Your task to perform on an android device: change notification settings in the gmail app Image 0: 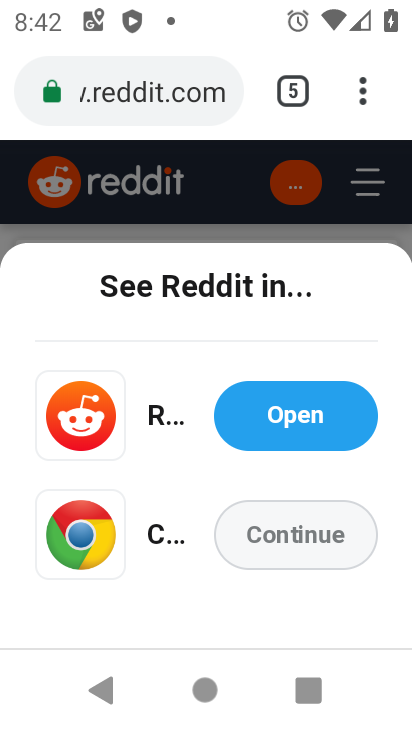
Step 0: press home button
Your task to perform on an android device: change notification settings in the gmail app Image 1: 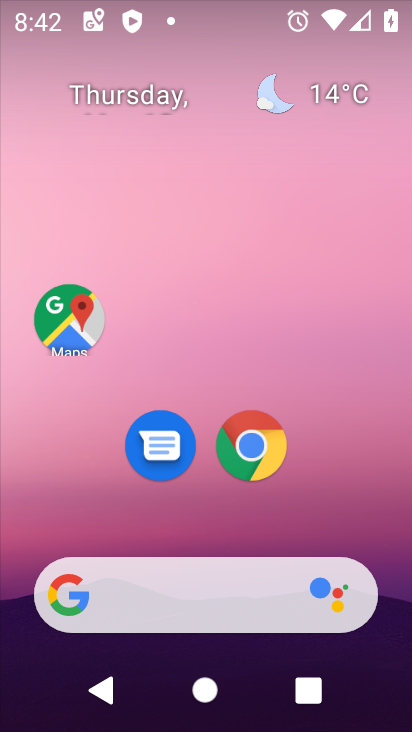
Step 1: drag from (236, 725) to (233, 131)
Your task to perform on an android device: change notification settings in the gmail app Image 2: 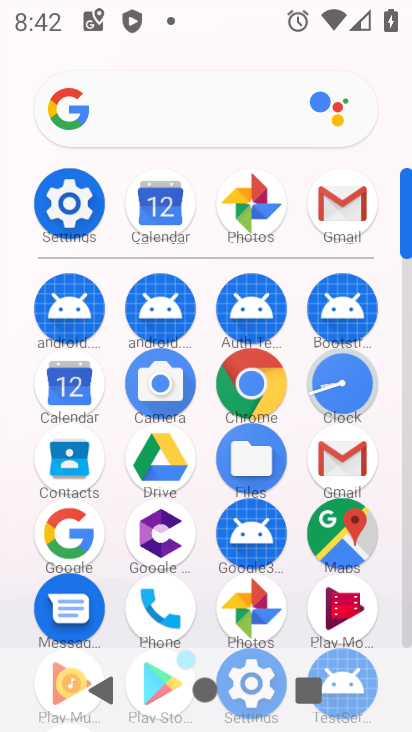
Step 2: click (351, 456)
Your task to perform on an android device: change notification settings in the gmail app Image 3: 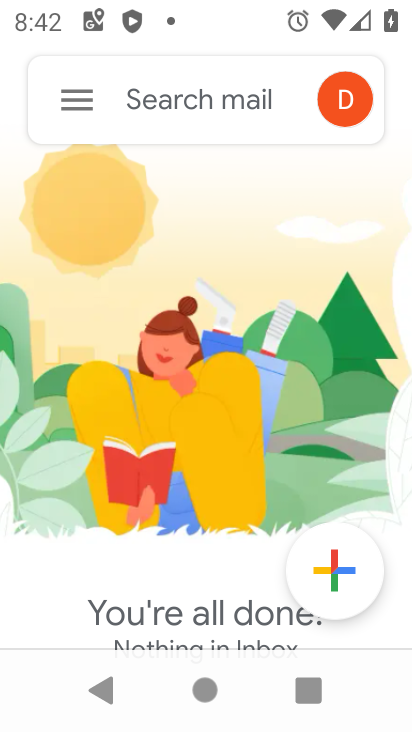
Step 3: click (68, 102)
Your task to perform on an android device: change notification settings in the gmail app Image 4: 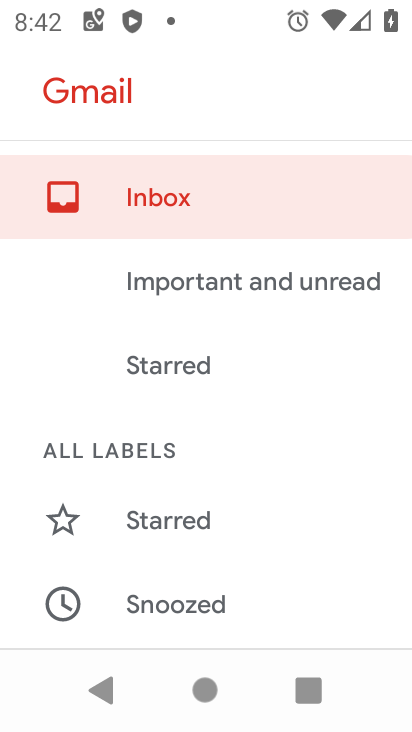
Step 4: drag from (209, 588) to (221, 152)
Your task to perform on an android device: change notification settings in the gmail app Image 5: 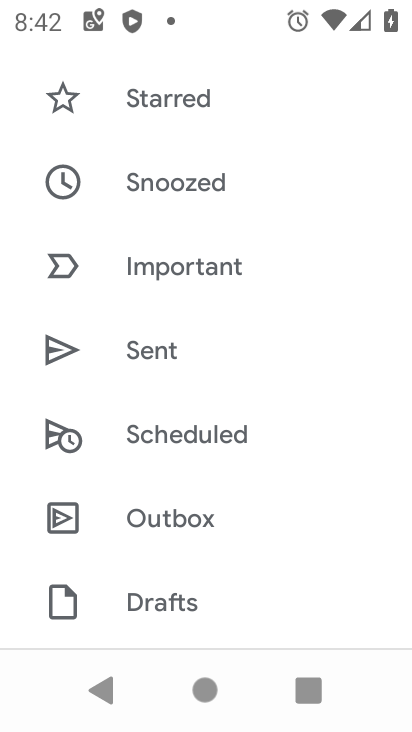
Step 5: drag from (234, 572) to (244, 162)
Your task to perform on an android device: change notification settings in the gmail app Image 6: 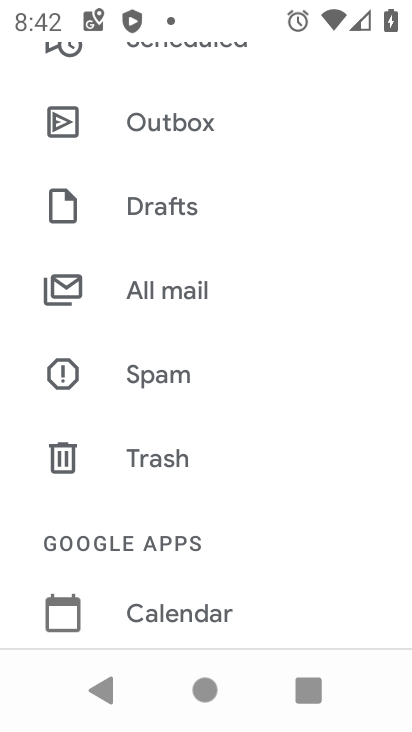
Step 6: drag from (146, 576) to (174, 88)
Your task to perform on an android device: change notification settings in the gmail app Image 7: 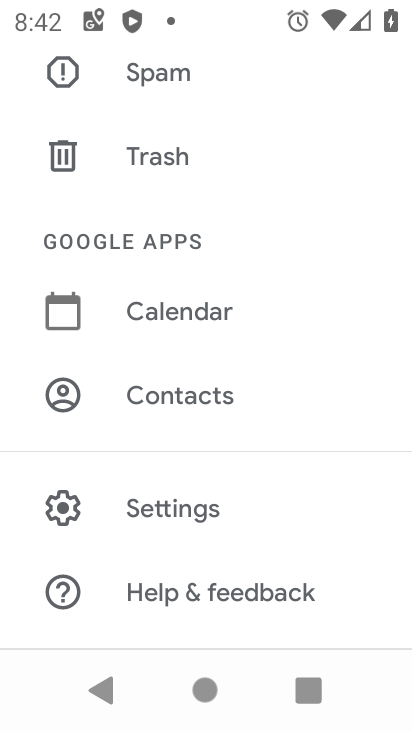
Step 7: click (197, 506)
Your task to perform on an android device: change notification settings in the gmail app Image 8: 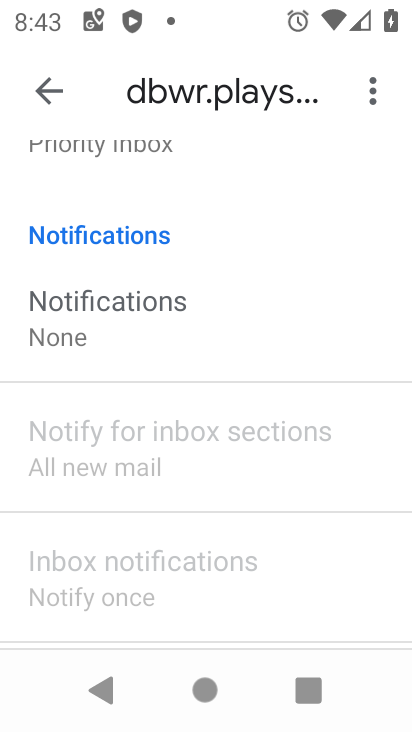
Step 8: click (107, 316)
Your task to perform on an android device: change notification settings in the gmail app Image 9: 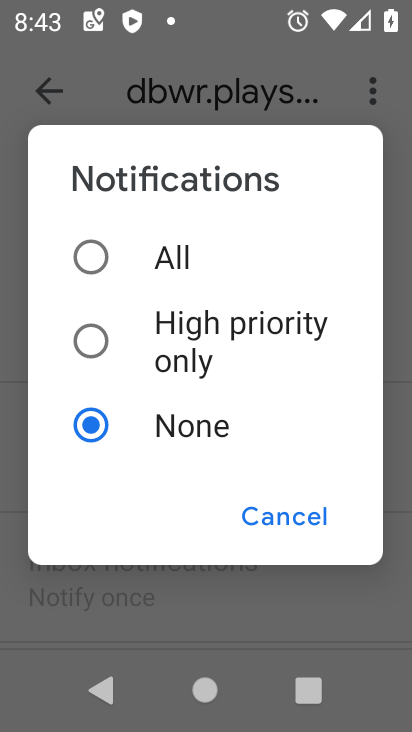
Step 9: click (89, 258)
Your task to perform on an android device: change notification settings in the gmail app Image 10: 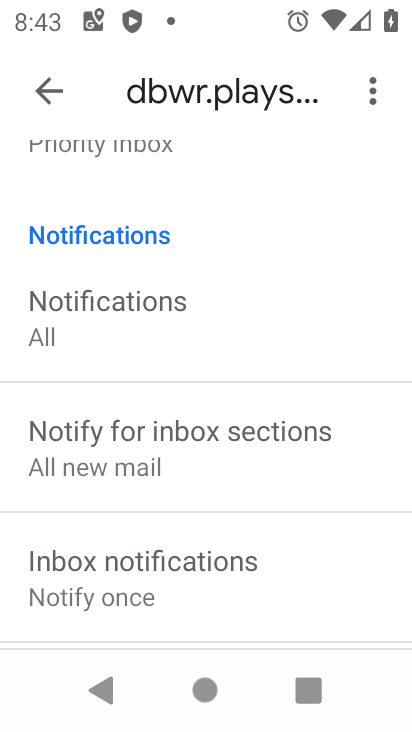
Step 10: task complete